Your task to perform on an android device: Go to Amazon Image 0: 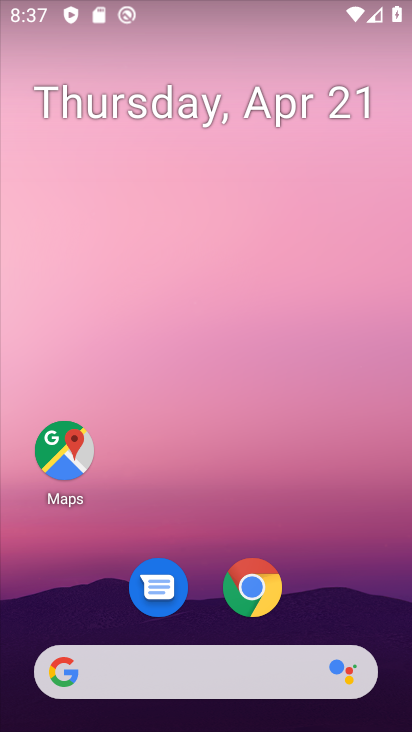
Step 0: click (264, 604)
Your task to perform on an android device: Go to Amazon Image 1: 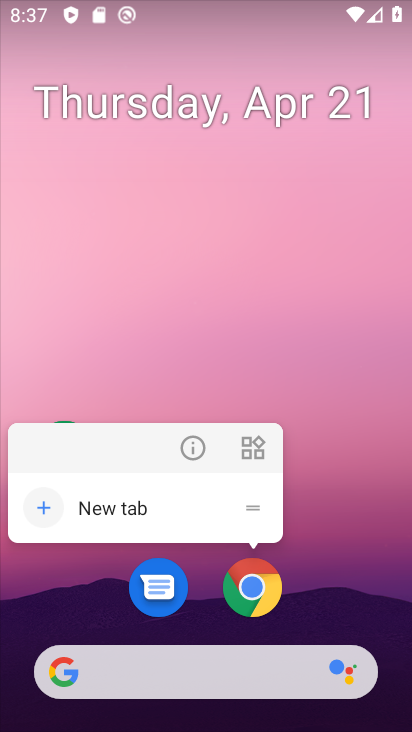
Step 1: click (240, 583)
Your task to perform on an android device: Go to Amazon Image 2: 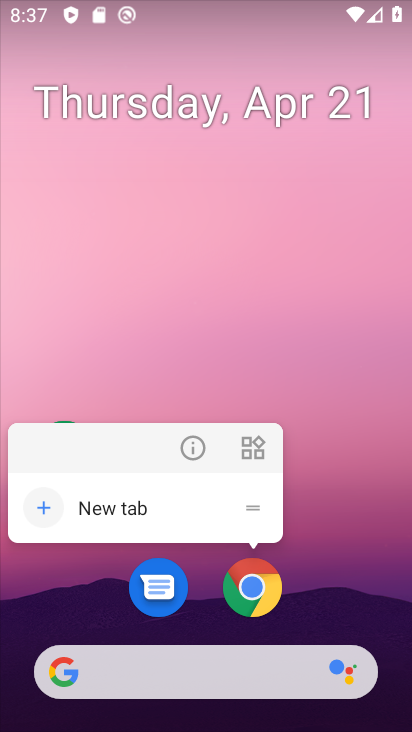
Step 2: click (240, 583)
Your task to perform on an android device: Go to Amazon Image 3: 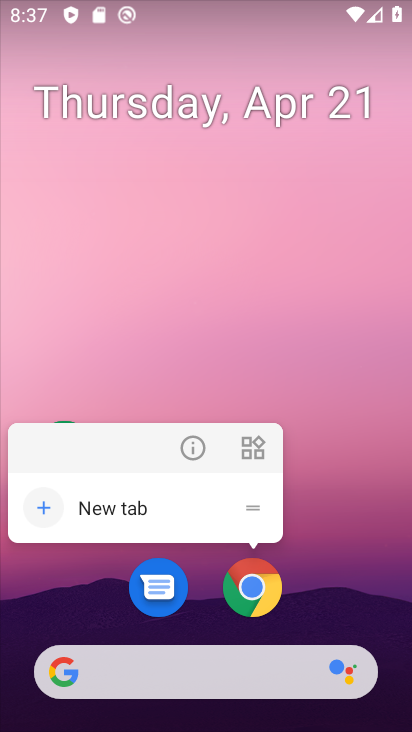
Step 3: click (240, 583)
Your task to perform on an android device: Go to Amazon Image 4: 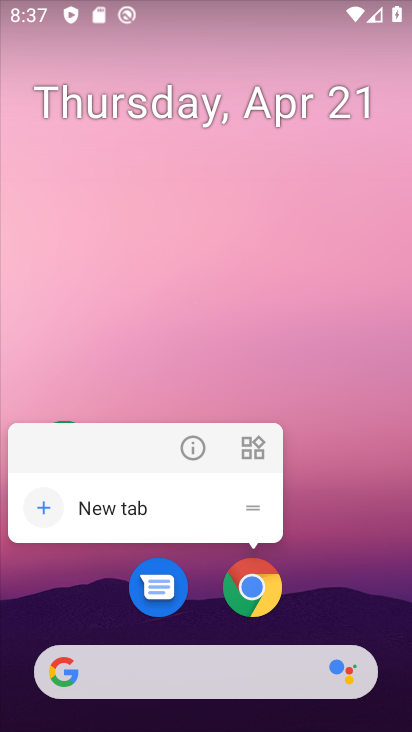
Step 4: click (257, 581)
Your task to perform on an android device: Go to Amazon Image 5: 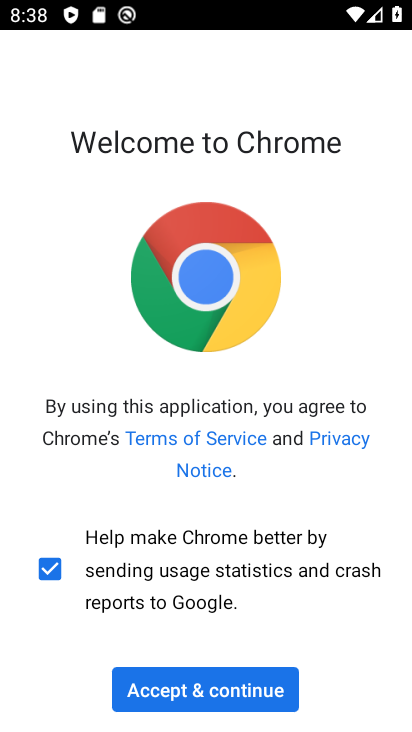
Step 5: click (242, 686)
Your task to perform on an android device: Go to Amazon Image 6: 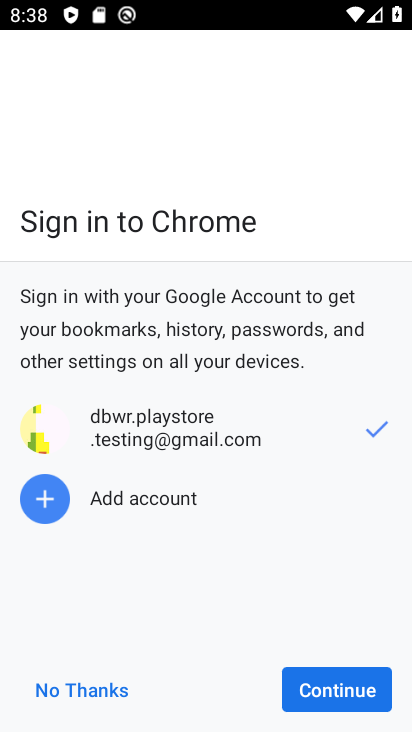
Step 6: click (303, 648)
Your task to perform on an android device: Go to Amazon Image 7: 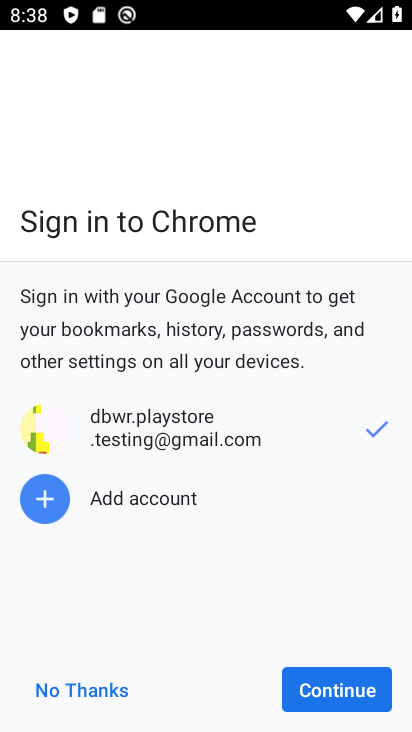
Step 7: click (334, 669)
Your task to perform on an android device: Go to Amazon Image 8: 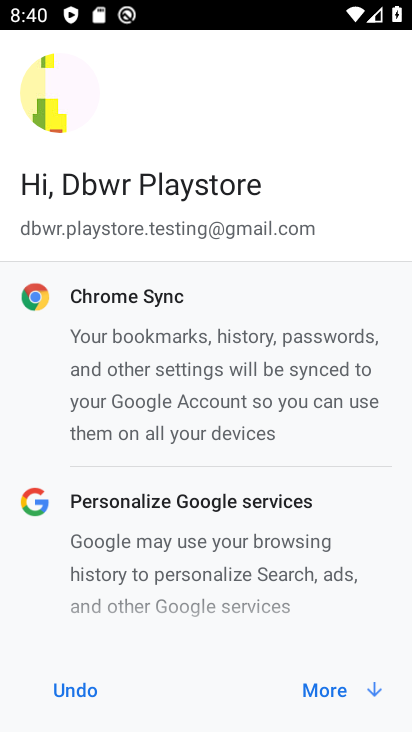
Step 8: click (332, 669)
Your task to perform on an android device: Go to Amazon Image 9: 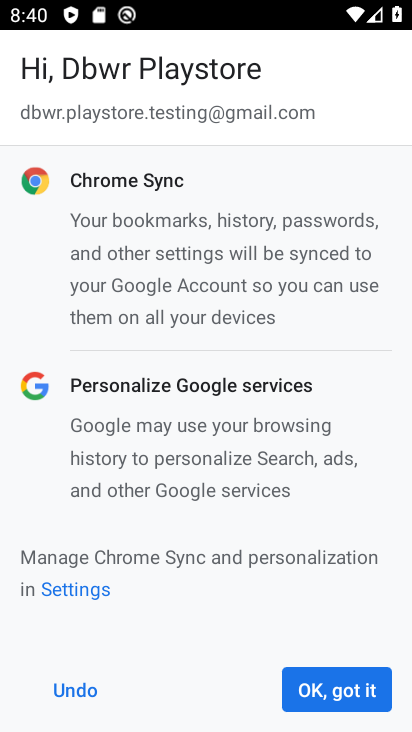
Step 9: click (332, 669)
Your task to perform on an android device: Go to Amazon Image 10: 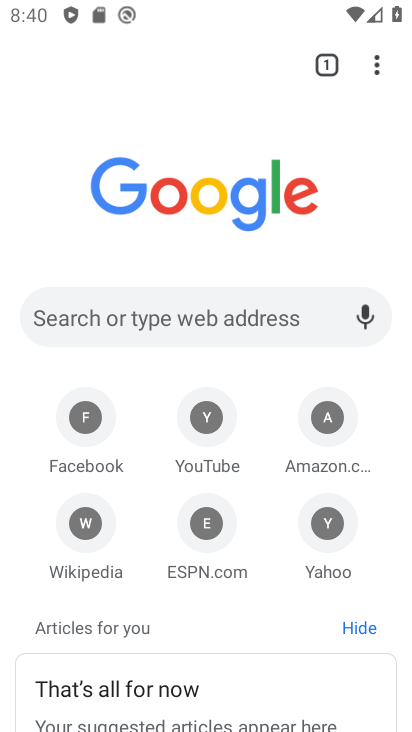
Step 10: click (326, 436)
Your task to perform on an android device: Go to Amazon Image 11: 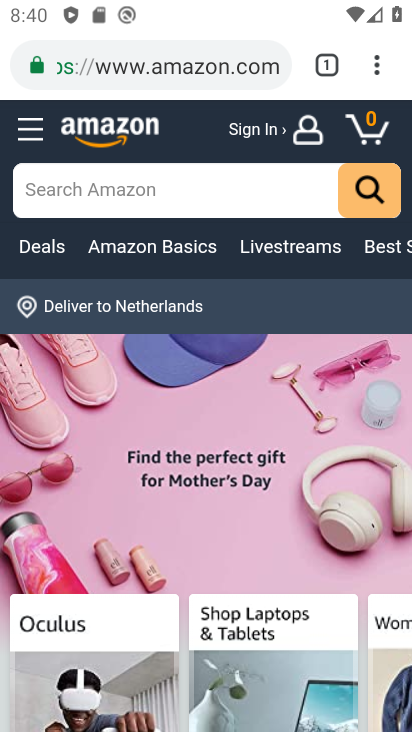
Step 11: task complete